Your task to perform on an android device: Go to ESPN.com Image 0: 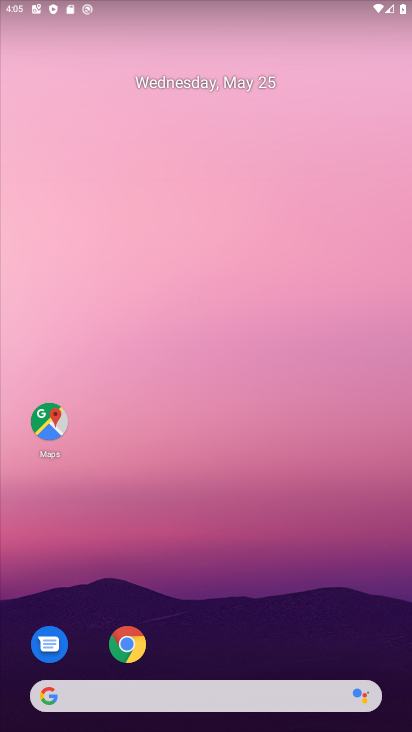
Step 0: click (133, 642)
Your task to perform on an android device: Go to ESPN.com Image 1: 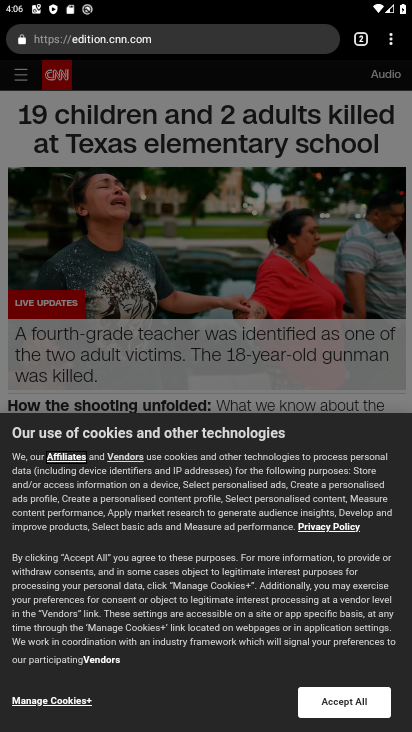
Step 1: click (138, 50)
Your task to perform on an android device: Go to ESPN.com Image 2: 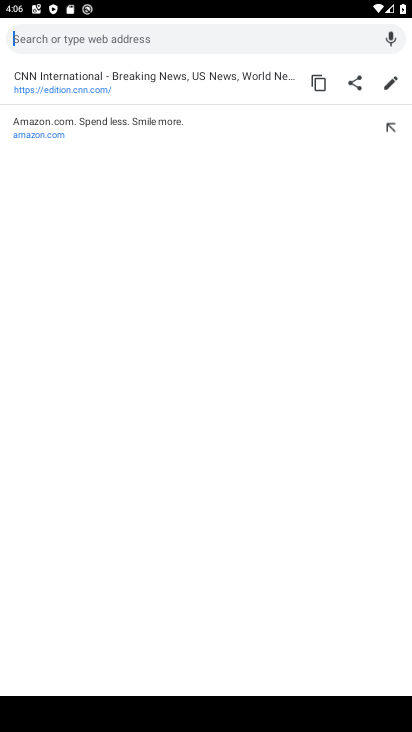
Step 2: type "espn.com"
Your task to perform on an android device: Go to ESPN.com Image 3: 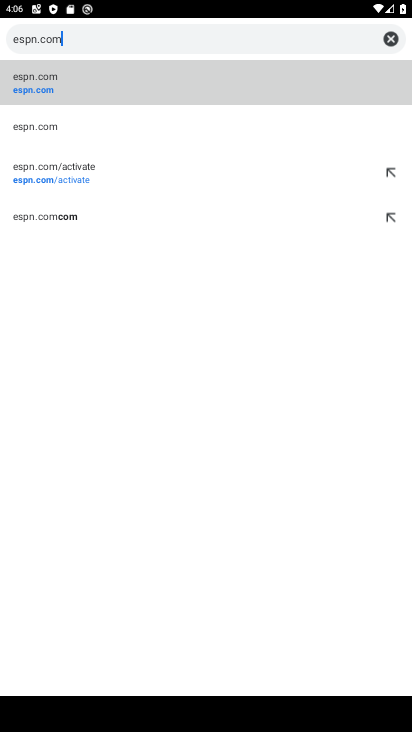
Step 3: click (15, 92)
Your task to perform on an android device: Go to ESPN.com Image 4: 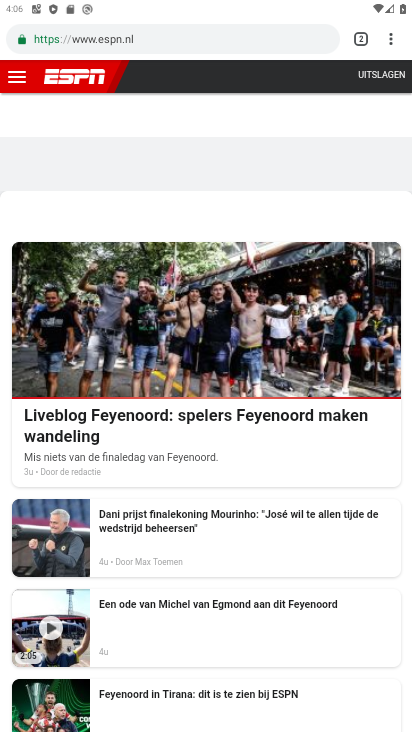
Step 4: task complete